Your task to perform on an android device: Show me popular games on the Play Store Image 0: 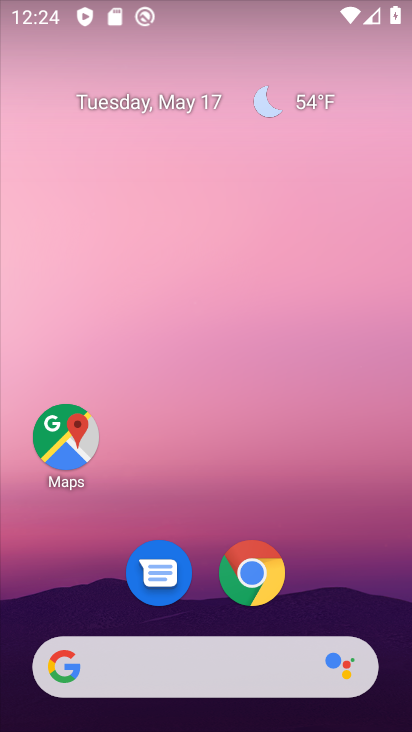
Step 0: drag from (199, 614) to (198, 143)
Your task to perform on an android device: Show me popular games on the Play Store Image 1: 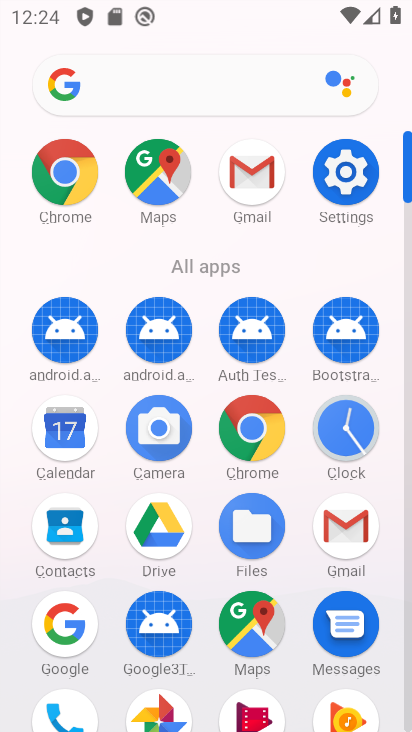
Step 1: drag from (206, 677) to (204, 210)
Your task to perform on an android device: Show me popular games on the Play Store Image 2: 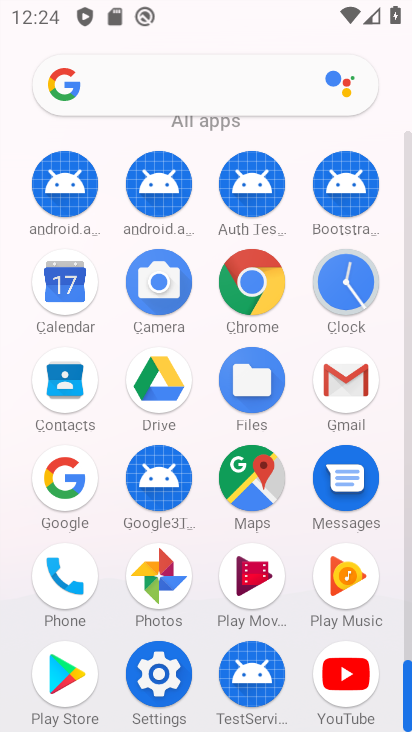
Step 2: click (66, 667)
Your task to perform on an android device: Show me popular games on the Play Store Image 3: 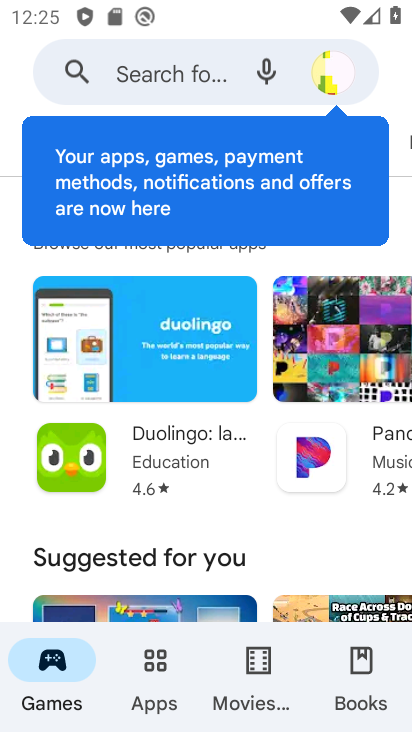
Step 3: drag from (253, 562) to (223, 320)
Your task to perform on an android device: Show me popular games on the Play Store Image 4: 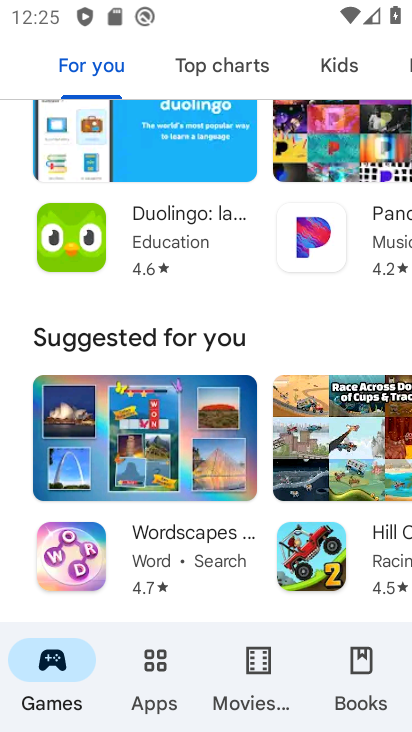
Step 4: drag from (236, 595) to (224, 176)
Your task to perform on an android device: Show me popular games on the Play Store Image 5: 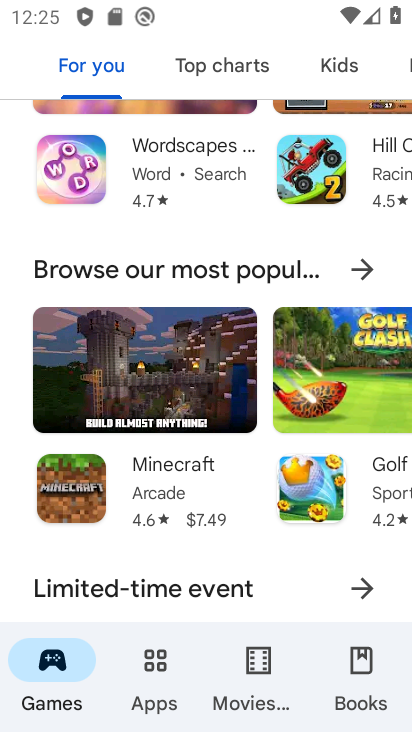
Step 5: click (363, 263)
Your task to perform on an android device: Show me popular games on the Play Store Image 6: 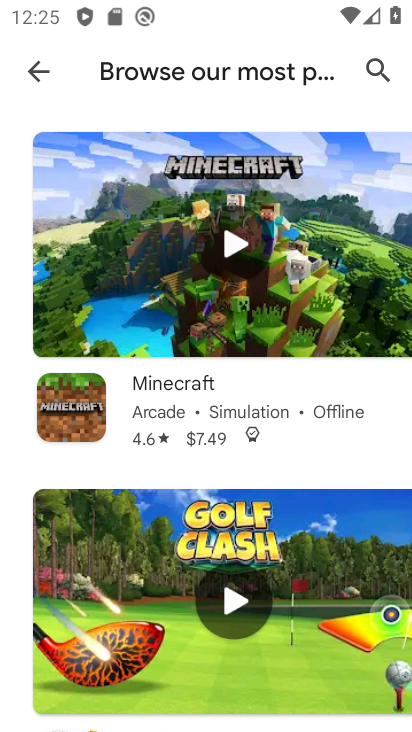
Step 6: task complete